Your task to perform on an android device: Open Yahoo.com Image 0: 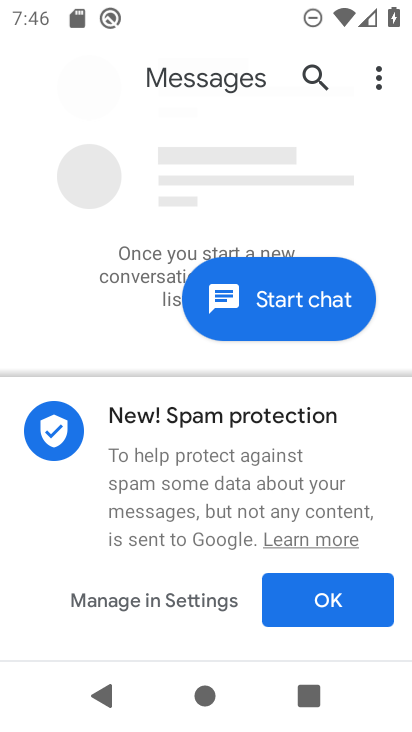
Step 0: press home button
Your task to perform on an android device: Open Yahoo.com Image 1: 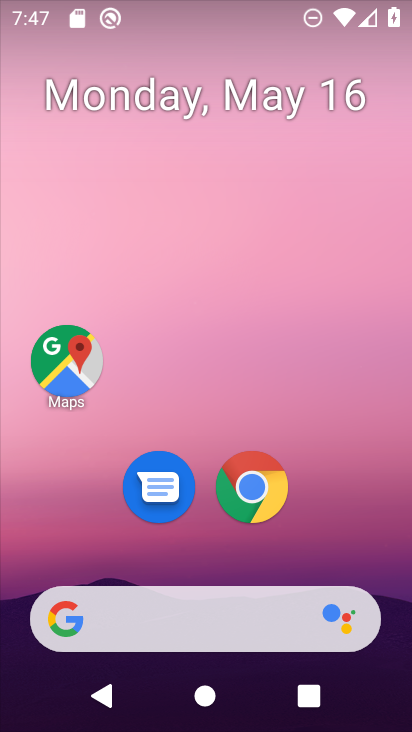
Step 1: click (258, 636)
Your task to perform on an android device: Open Yahoo.com Image 2: 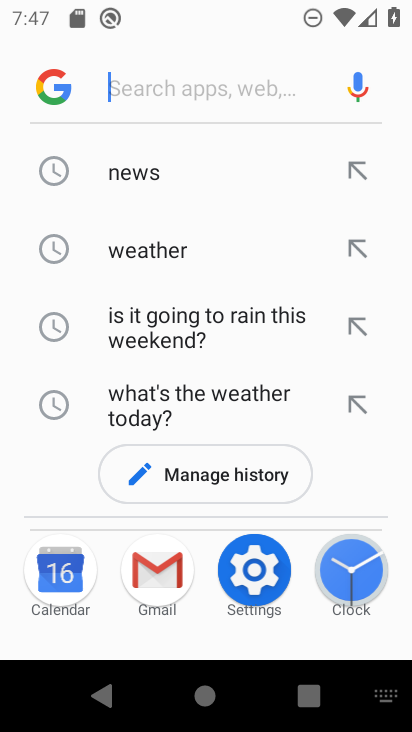
Step 2: type "yahoo.com"
Your task to perform on an android device: Open Yahoo.com Image 3: 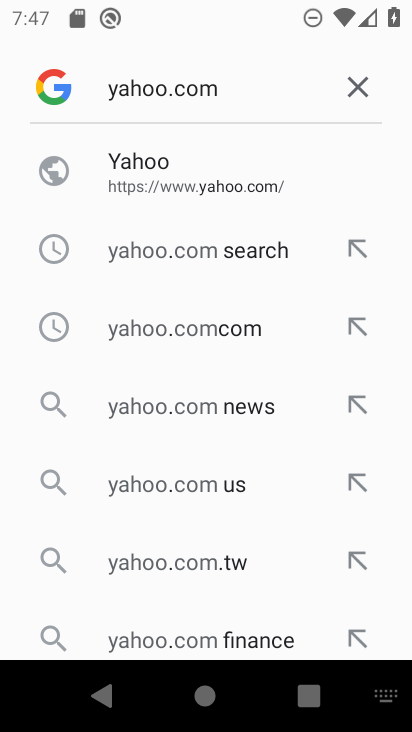
Step 3: click (133, 168)
Your task to perform on an android device: Open Yahoo.com Image 4: 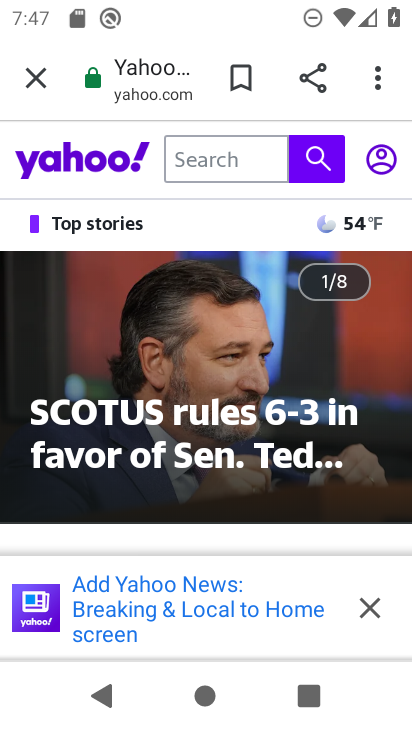
Step 4: task complete